Your task to perform on an android device: Open network settings Image 0: 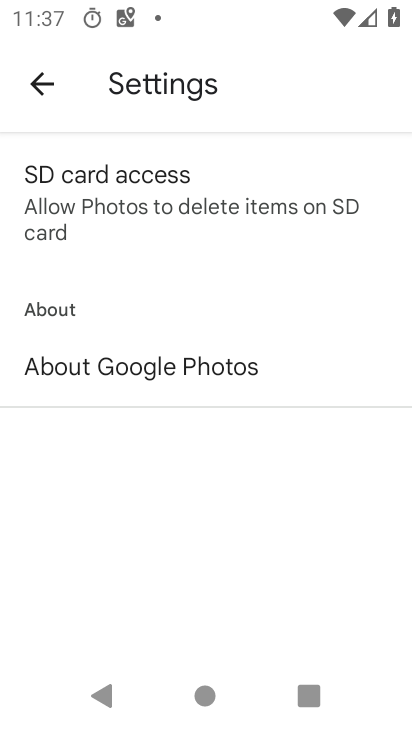
Step 0: press home button
Your task to perform on an android device: Open network settings Image 1: 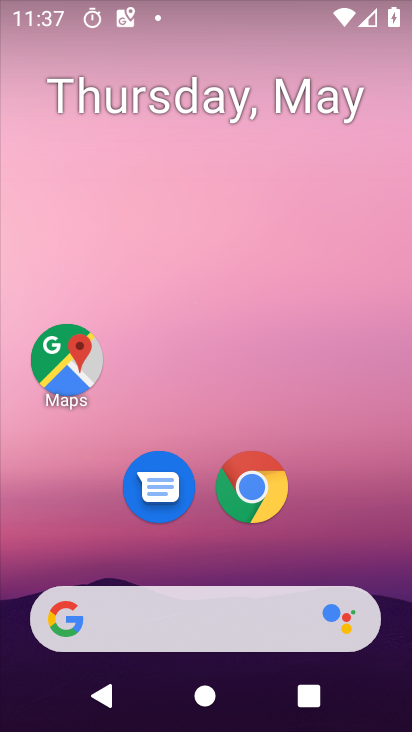
Step 1: drag from (322, 539) to (327, 84)
Your task to perform on an android device: Open network settings Image 2: 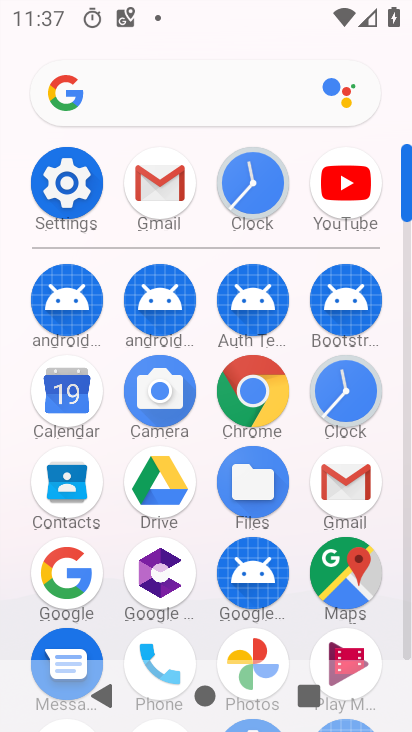
Step 2: click (62, 187)
Your task to perform on an android device: Open network settings Image 3: 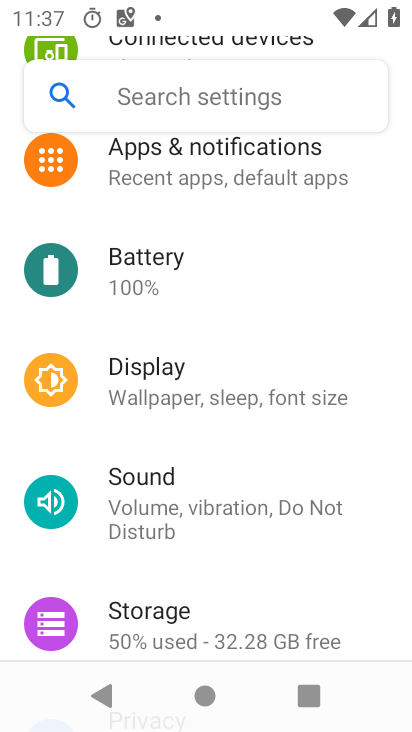
Step 3: drag from (239, 230) to (292, 536)
Your task to perform on an android device: Open network settings Image 4: 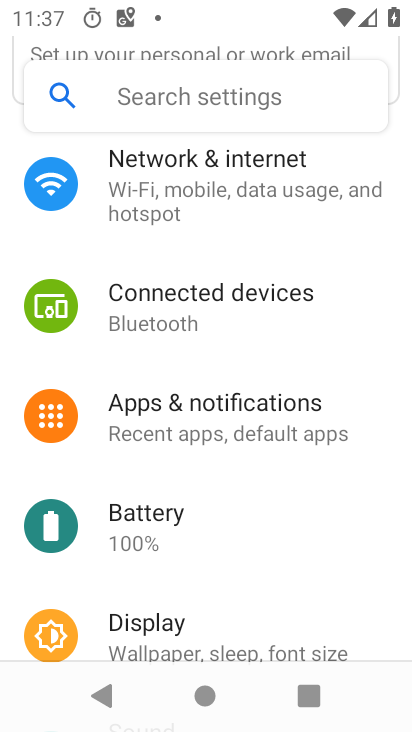
Step 4: click (243, 191)
Your task to perform on an android device: Open network settings Image 5: 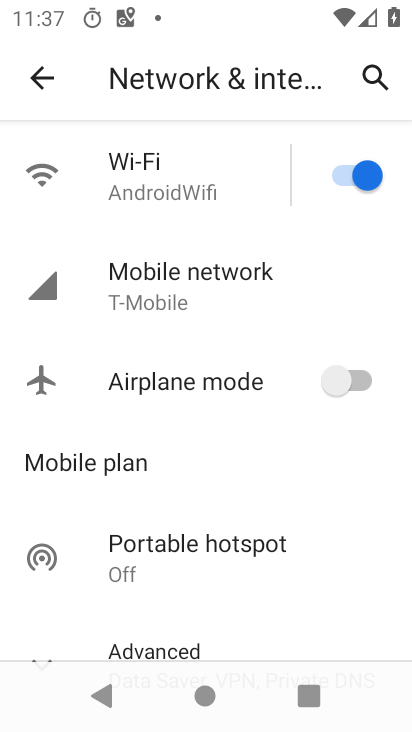
Step 5: task complete